Your task to perform on an android device: Go to Wikipedia Image 0: 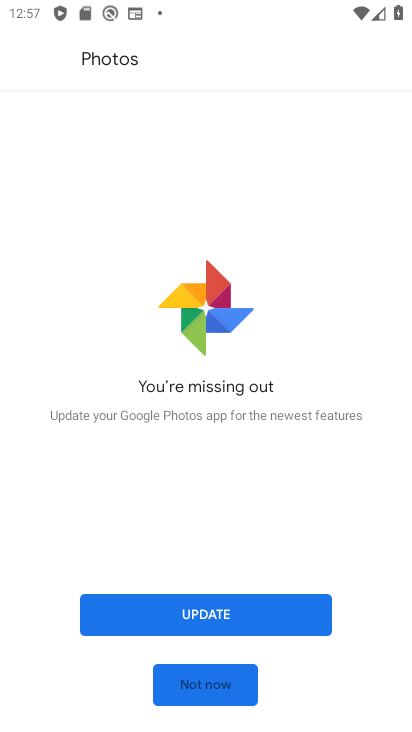
Step 0: press back button
Your task to perform on an android device: Go to Wikipedia Image 1: 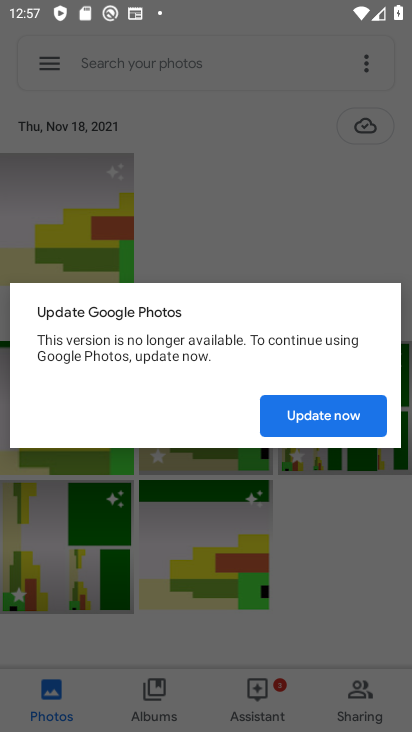
Step 1: press back button
Your task to perform on an android device: Go to Wikipedia Image 2: 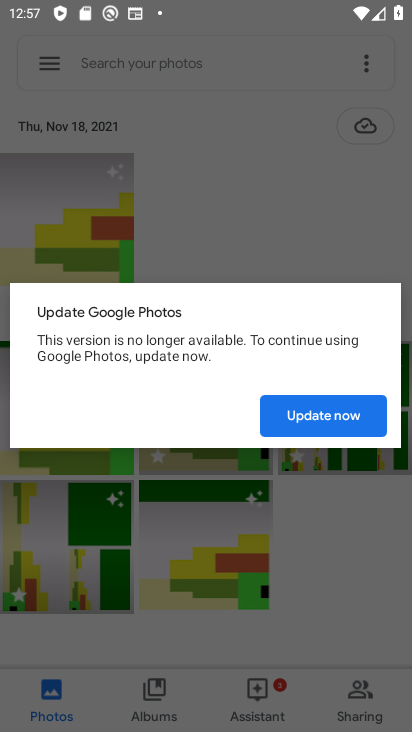
Step 2: press home button
Your task to perform on an android device: Go to Wikipedia Image 3: 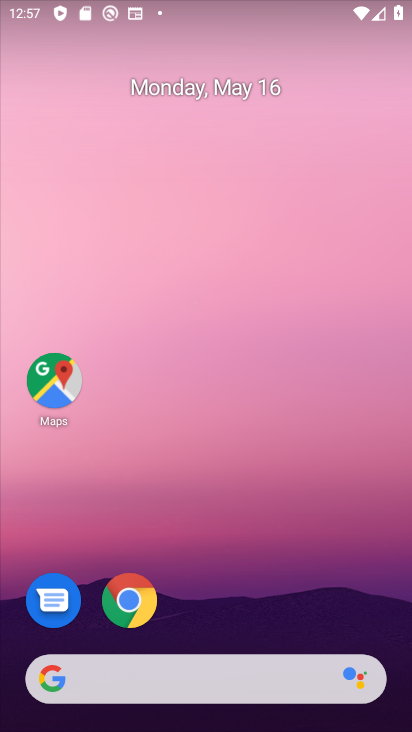
Step 3: drag from (321, 591) to (320, 117)
Your task to perform on an android device: Go to Wikipedia Image 4: 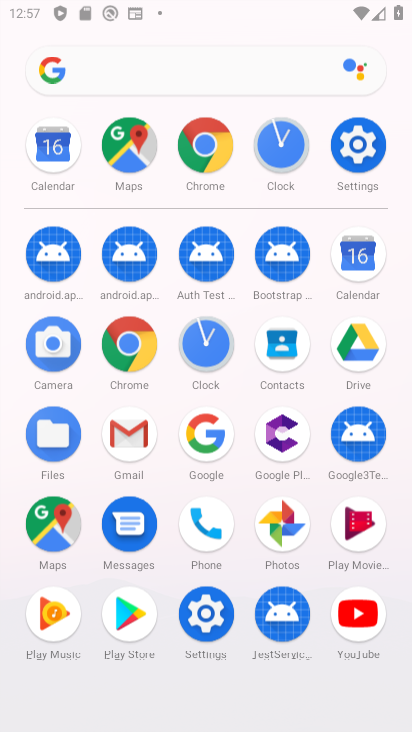
Step 4: click (327, 311)
Your task to perform on an android device: Go to Wikipedia Image 5: 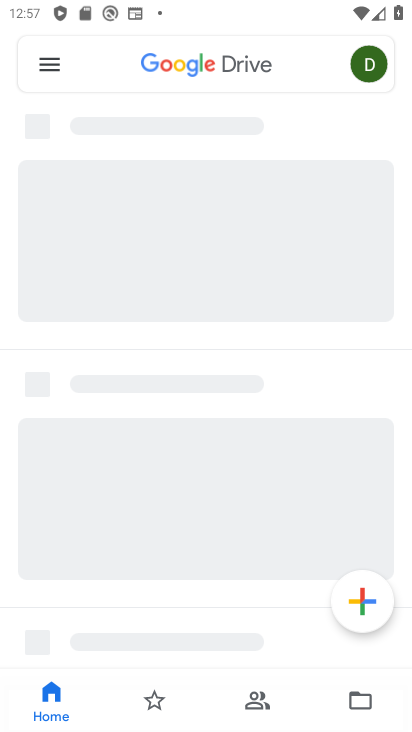
Step 5: press back button
Your task to perform on an android device: Go to Wikipedia Image 6: 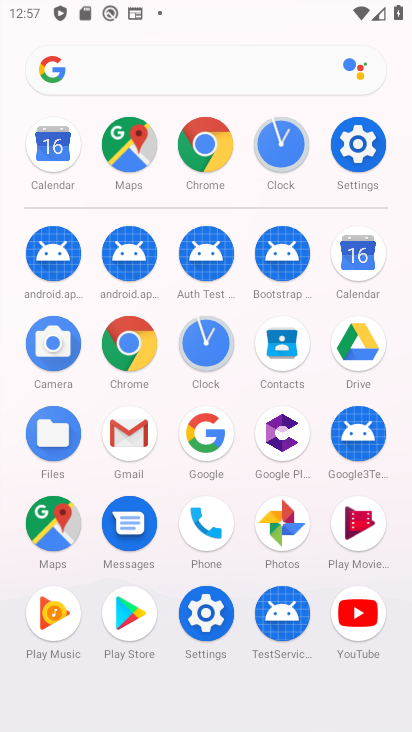
Step 6: click (117, 340)
Your task to perform on an android device: Go to Wikipedia Image 7: 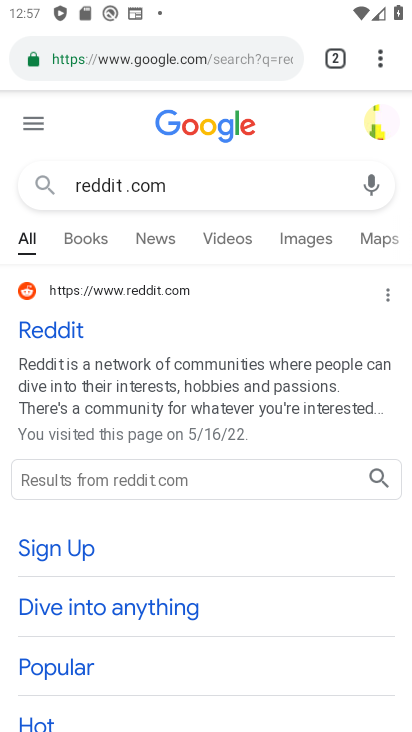
Step 7: press back button
Your task to perform on an android device: Go to Wikipedia Image 8: 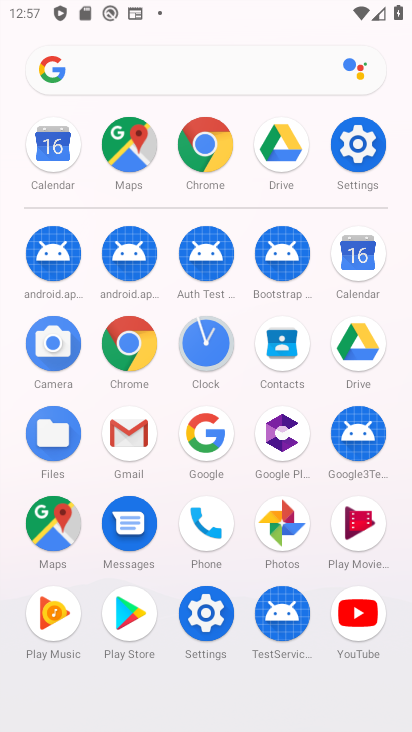
Step 8: click (125, 358)
Your task to perform on an android device: Go to Wikipedia Image 9: 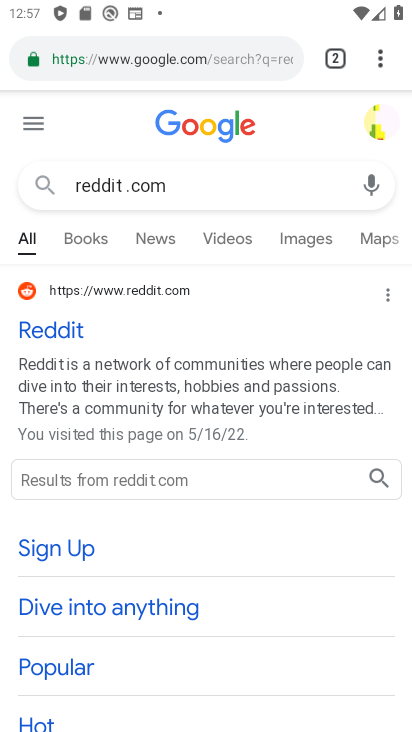
Step 9: click (195, 62)
Your task to perform on an android device: Go to Wikipedia Image 10: 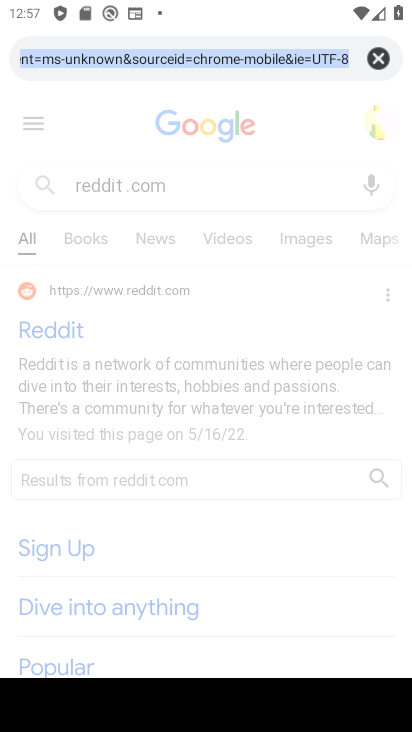
Step 10: click (370, 64)
Your task to perform on an android device: Go to Wikipedia Image 11: 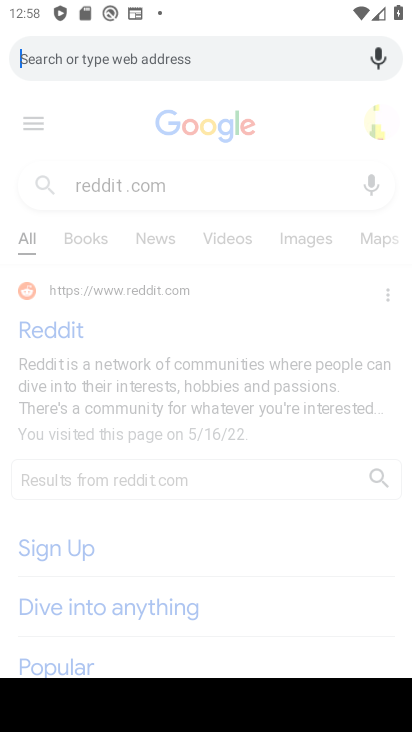
Step 11: type "wikpiedia"
Your task to perform on an android device: Go to Wikipedia Image 12: 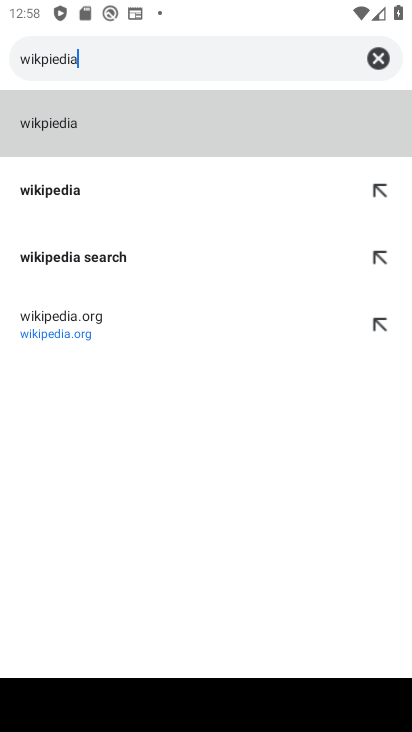
Step 12: click (47, 126)
Your task to perform on an android device: Go to Wikipedia Image 13: 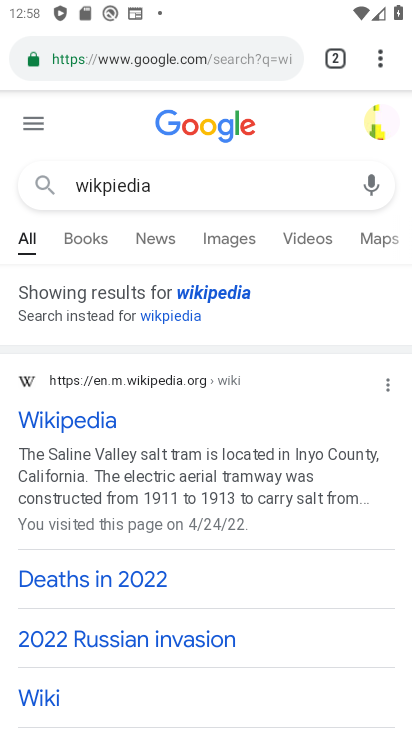
Step 13: click (227, 284)
Your task to perform on an android device: Go to Wikipedia Image 14: 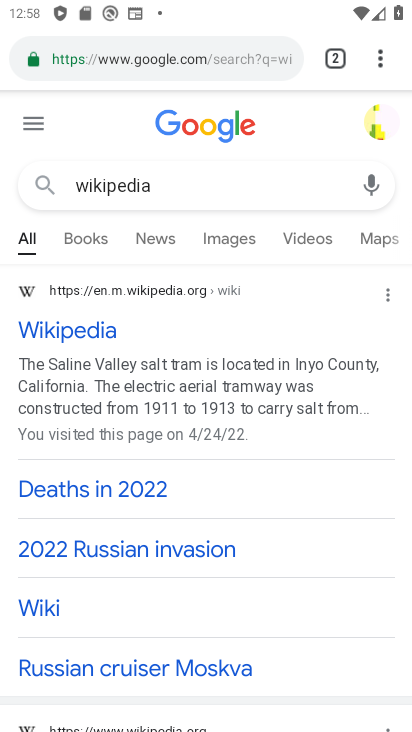
Step 14: task complete